Your task to perform on an android device: See recent photos Image 0: 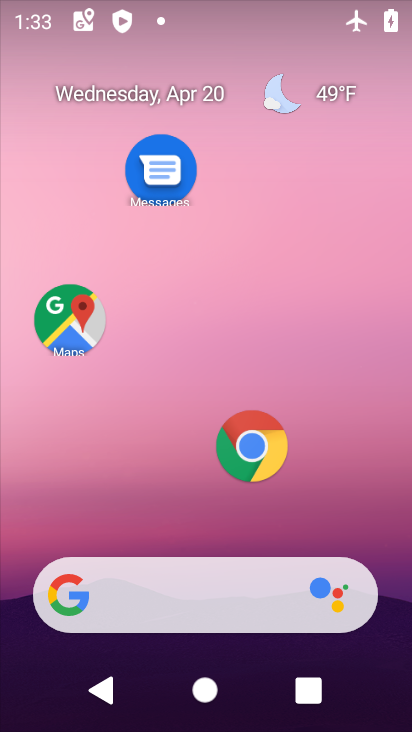
Step 0: drag from (202, 509) to (205, 49)
Your task to perform on an android device: See recent photos Image 1: 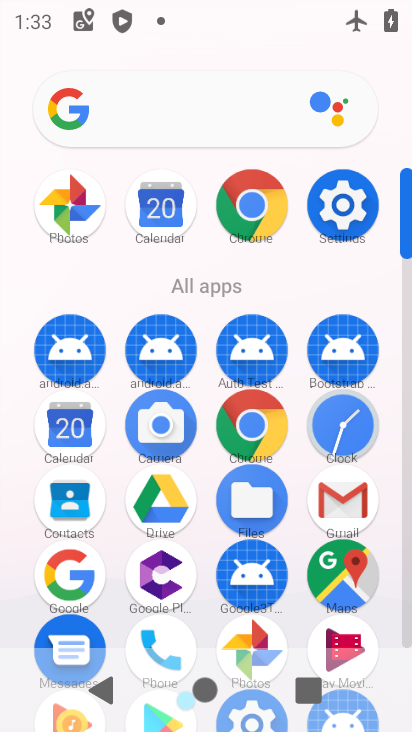
Step 1: click (253, 629)
Your task to perform on an android device: See recent photos Image 2: 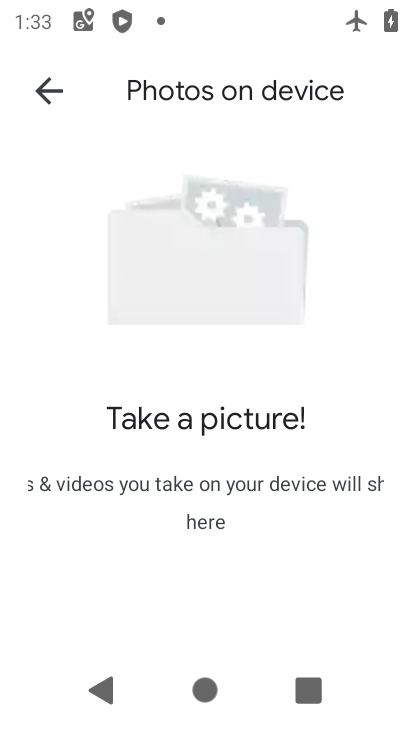
Step 2: click (48, 94)
Your task to perform on an android device: See recent photos Image 3: 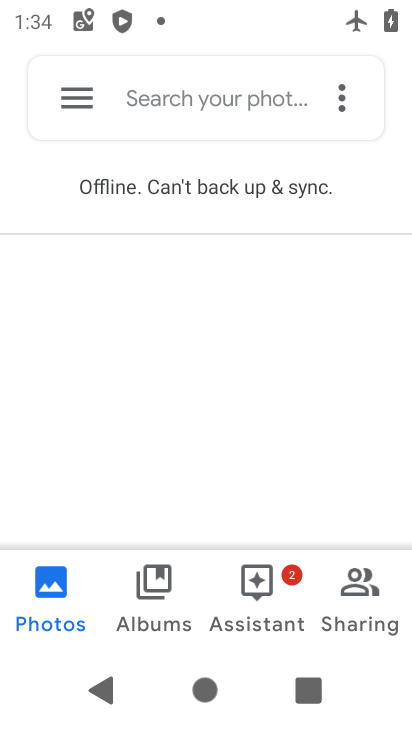
Step 3: task complete